Your task to perform on an android device: Open display settings Image 0: 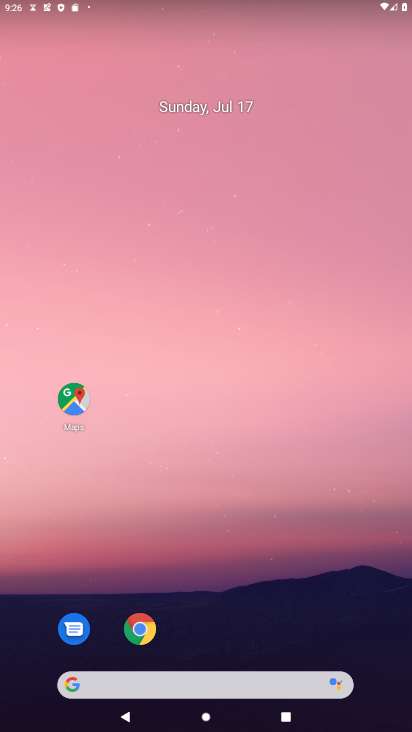
Step 0: drag from (234, 720) to (273, 219)
Your task to perform on an android device: Open display settings Image 1: 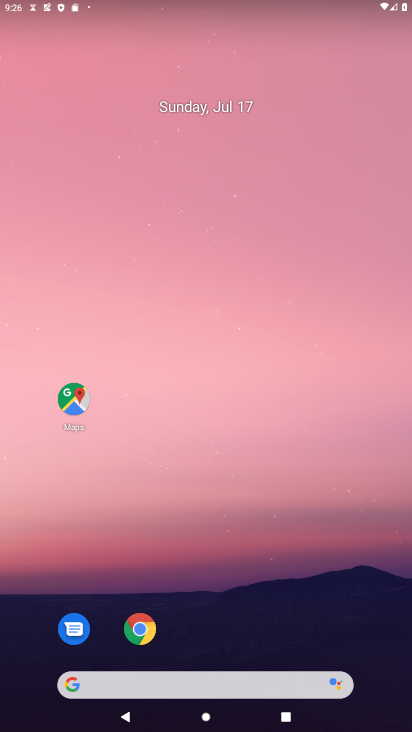
Step 1: drag from (232, 729) to (270, 146)
Your task to perform on an android device: Open display settings Image 2: 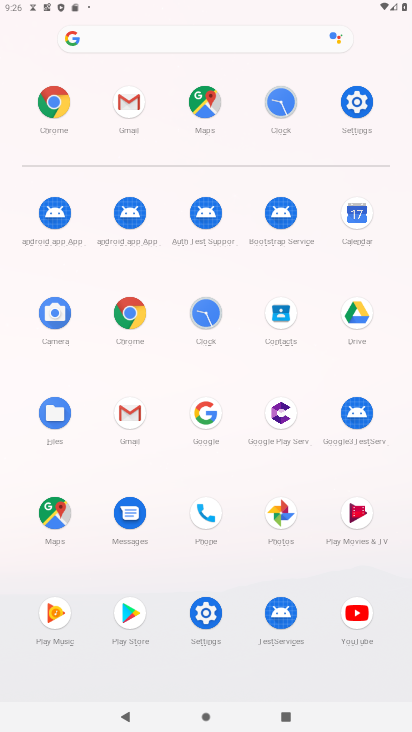
Step 2: click (356, 104)
Your task to perform on an android device: Open display settings Image 3: 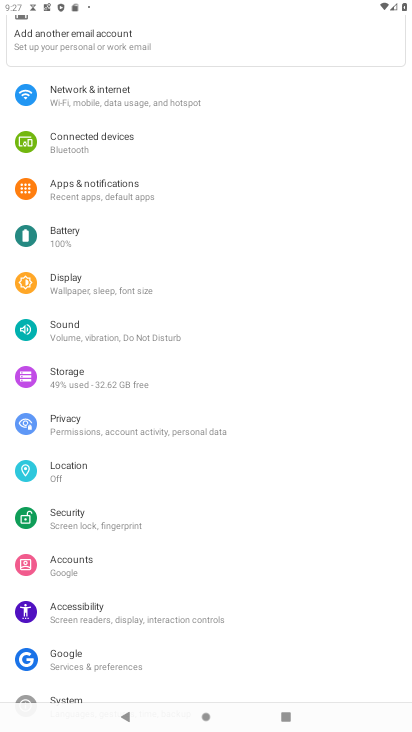
Step 3: click (80, 277)
Your task to perform on an android device: Open display settings Image 4: 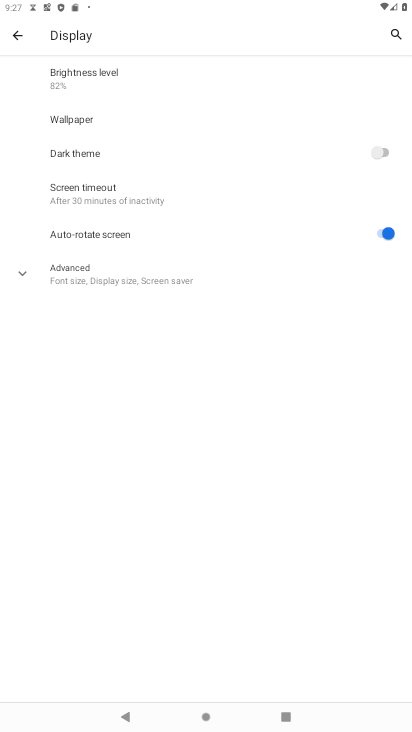
Step 4: task complete